Your task to perform on an android device: Show the shopping cart on amazon.com. Add sony triple a to the cart on amazon.com, then select checkout. Image 0: 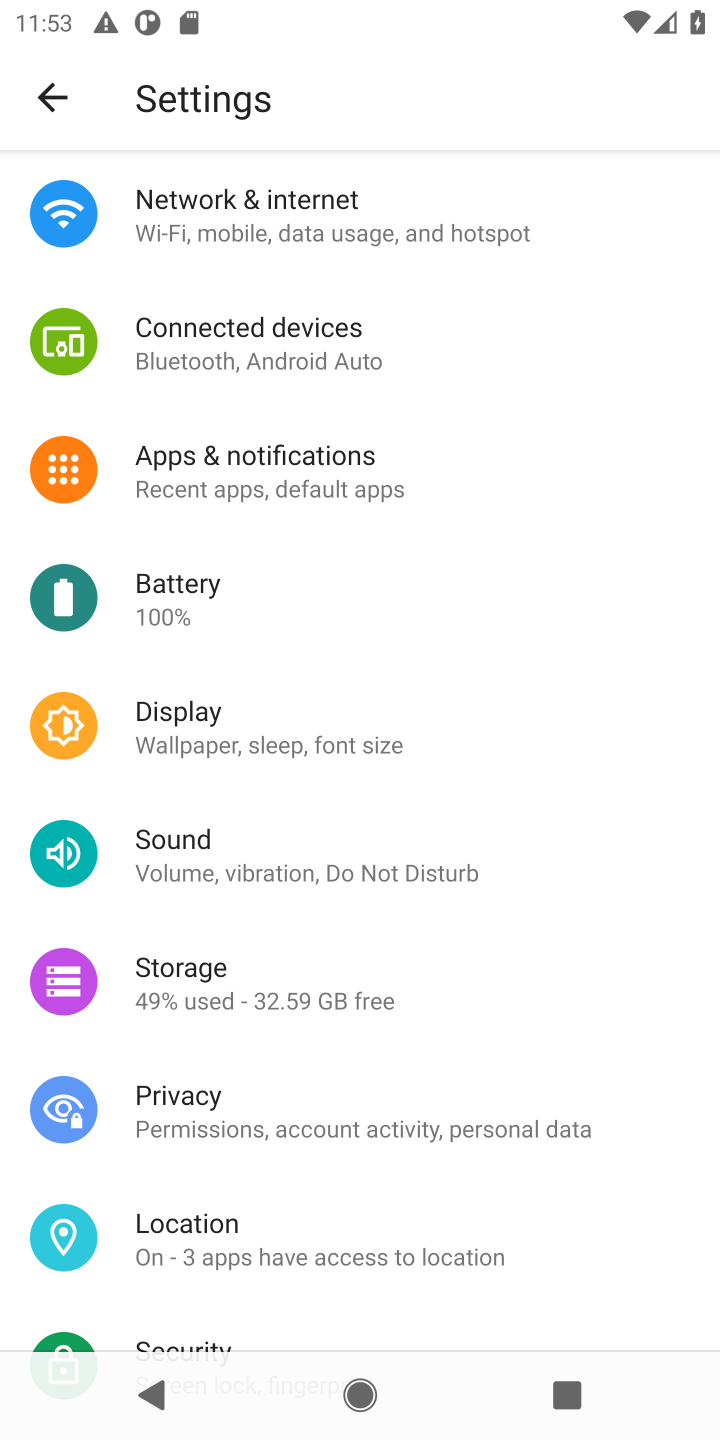
Step 0: press home button
Your task to perform on an android device: Show the shopping cart on amazon.com. Add sony triple a to the cart on amazon.com, then select checkout. Image 1: 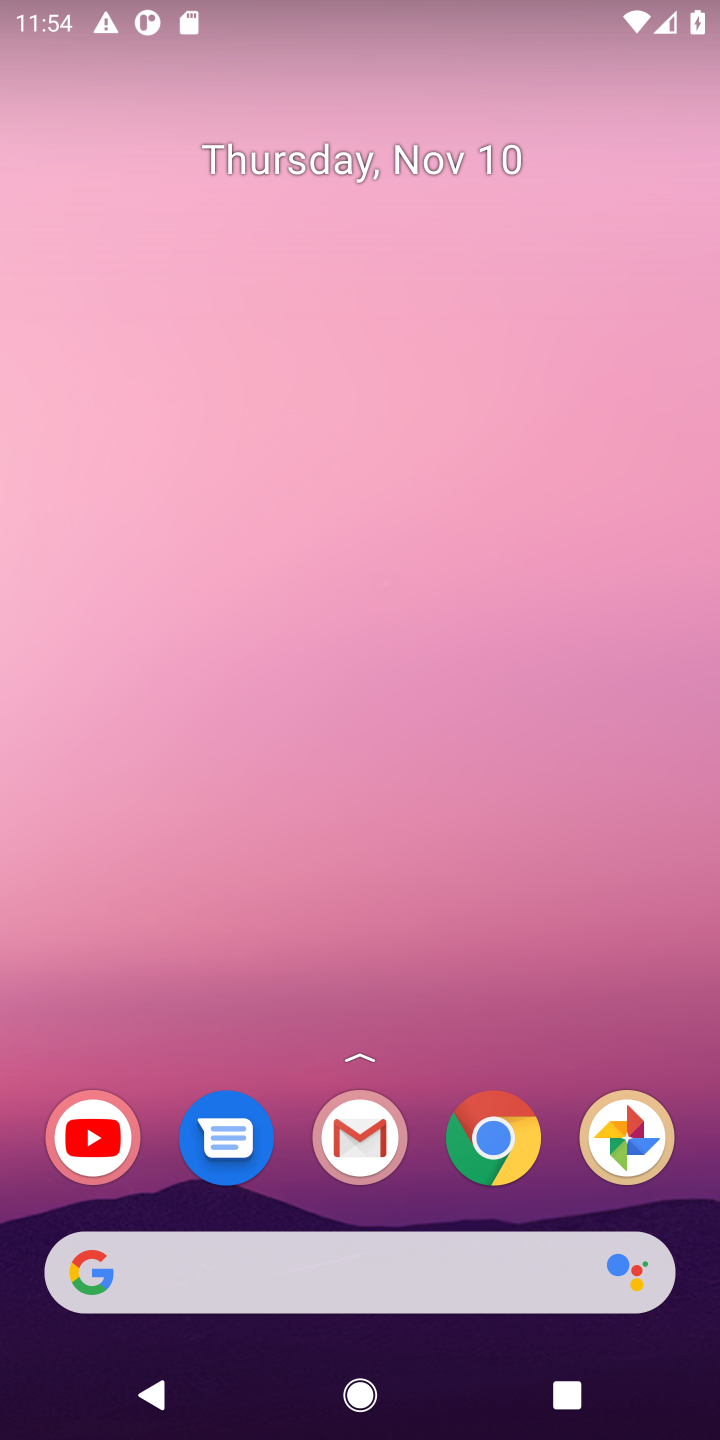
Step 1: click (482, 1144)
Your task to perform on an android device: Show the shopping cart on amazon.com. Add sony triple a to the cart on amazon.com, then select checkout. Image 2: 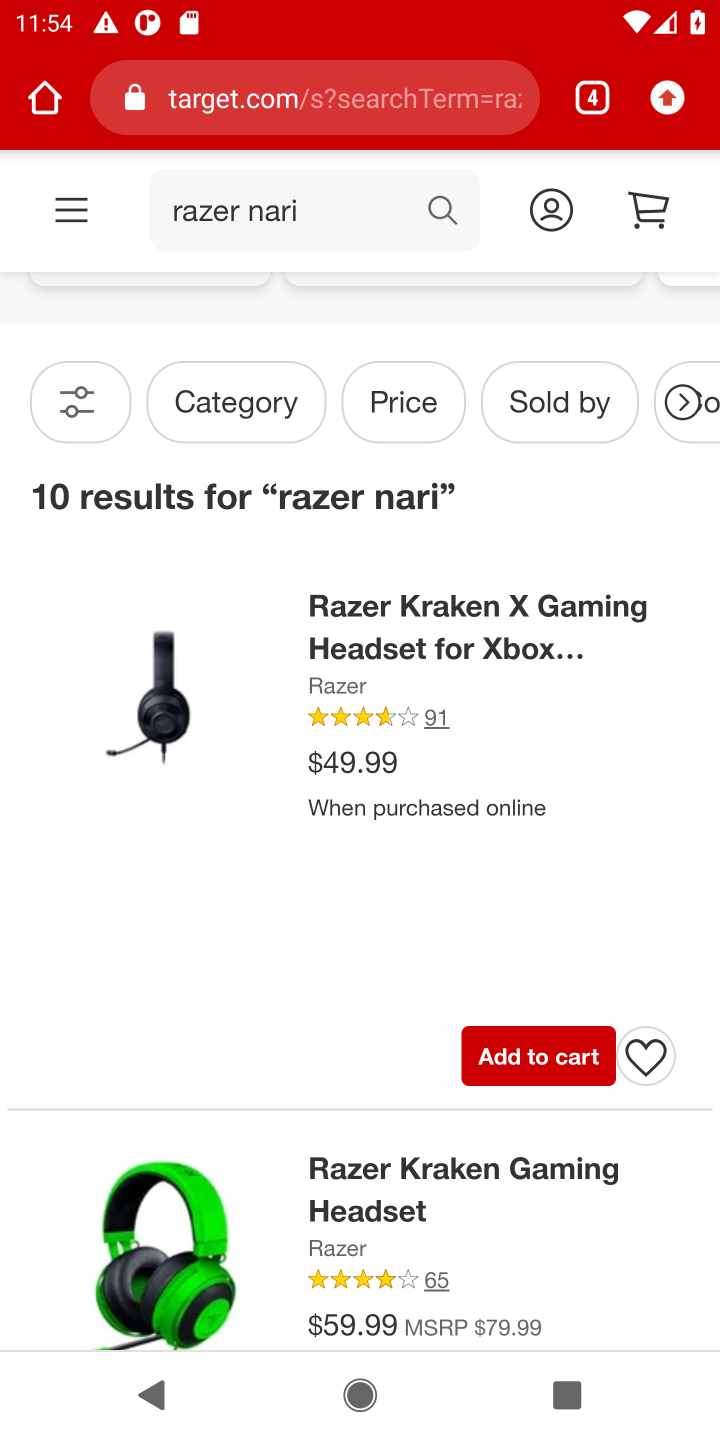
Step 2: click (597, 81)
Your task to perform on an android device: Show the shopping cart on amazon.com. Add sony triple a to the cart on amazon.com, then select checkout. Image 3: 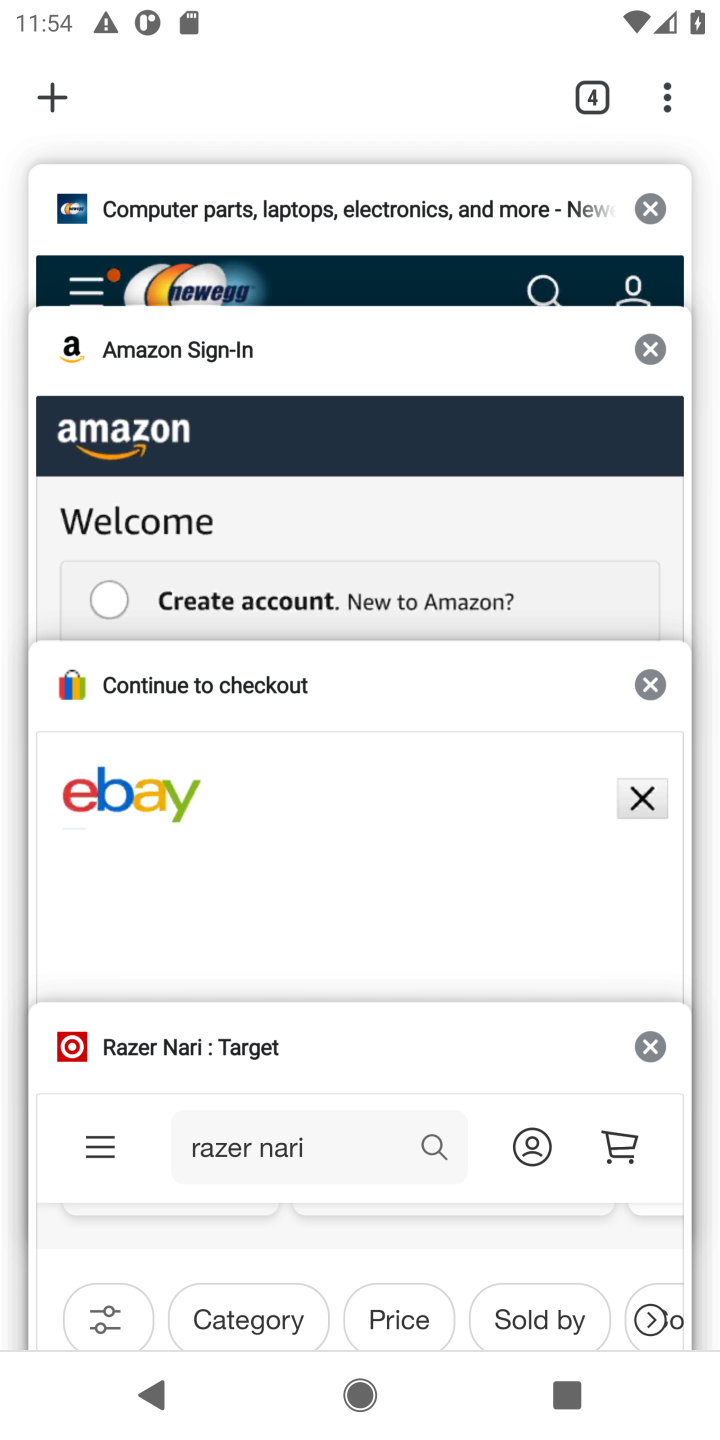
Step 3: click (301, 423)
Your task to perform on an android device: Show the shopping cart on amazon.com. Add sony triple a to the cart on amazon.com, then select checkout. Image 4: 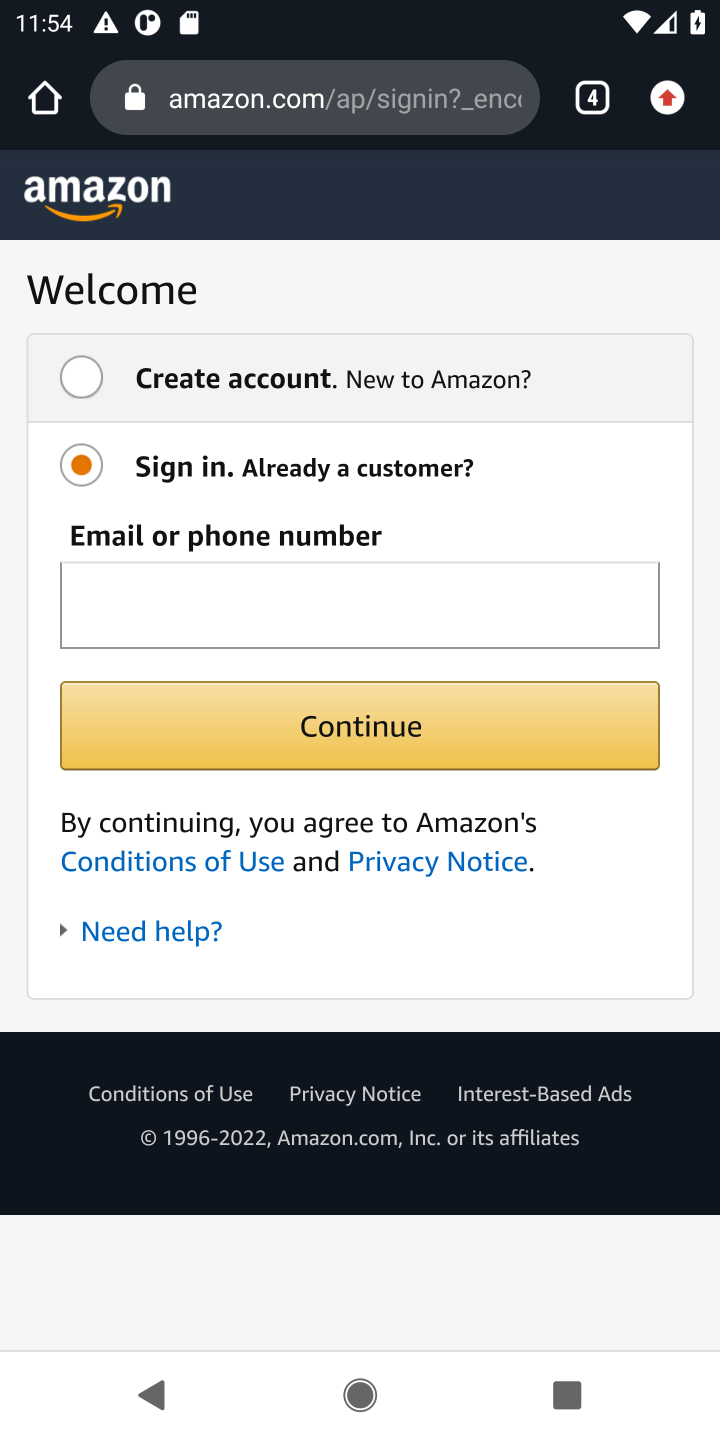
Step 4: press back button
Your task to perform on an android device: Show the shopping cart on amazon.com. Add sony triple a to the cart on amazon.com, then select checkout. Image 5: 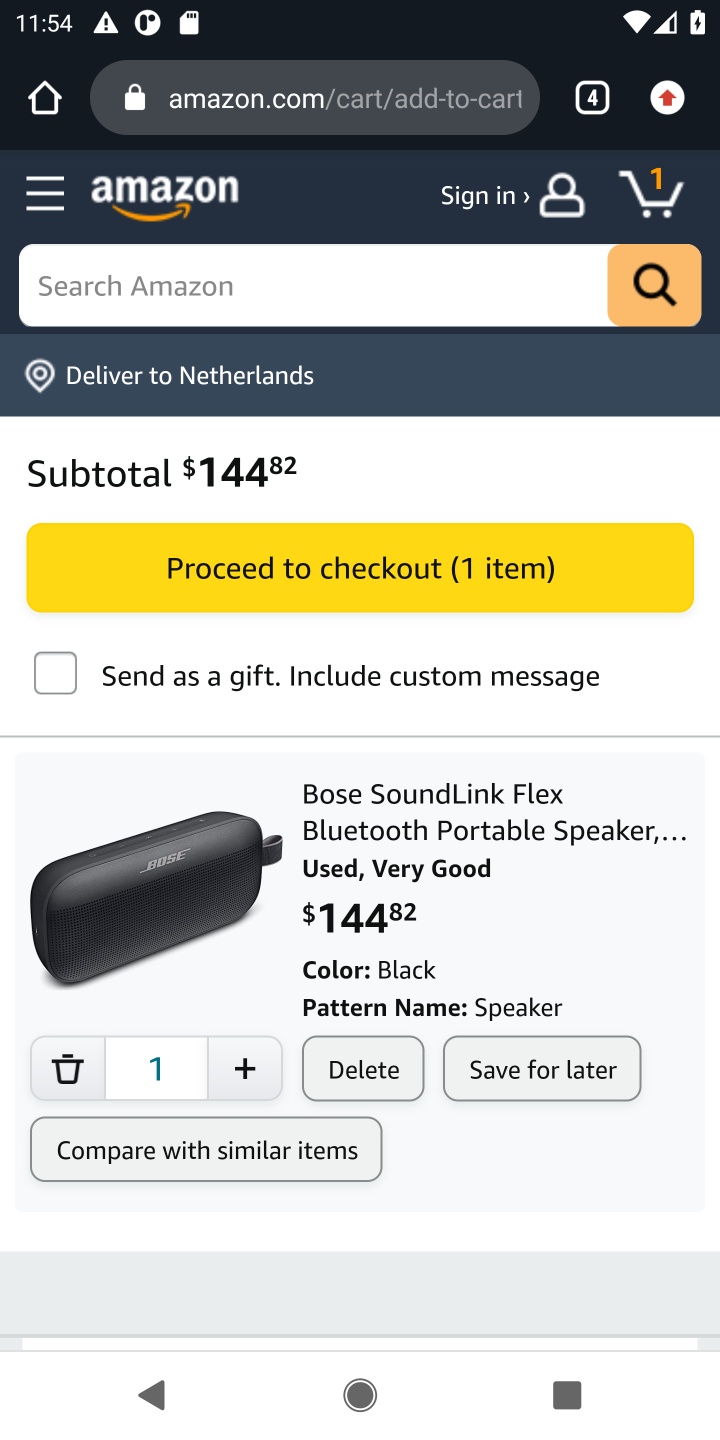
Step 5: click (307, 286)
Your task to perform on an android device: Show the shopping cart on amazon.com. Add sony triple a to the cart on amazon.com, then select checkout. Image 6: 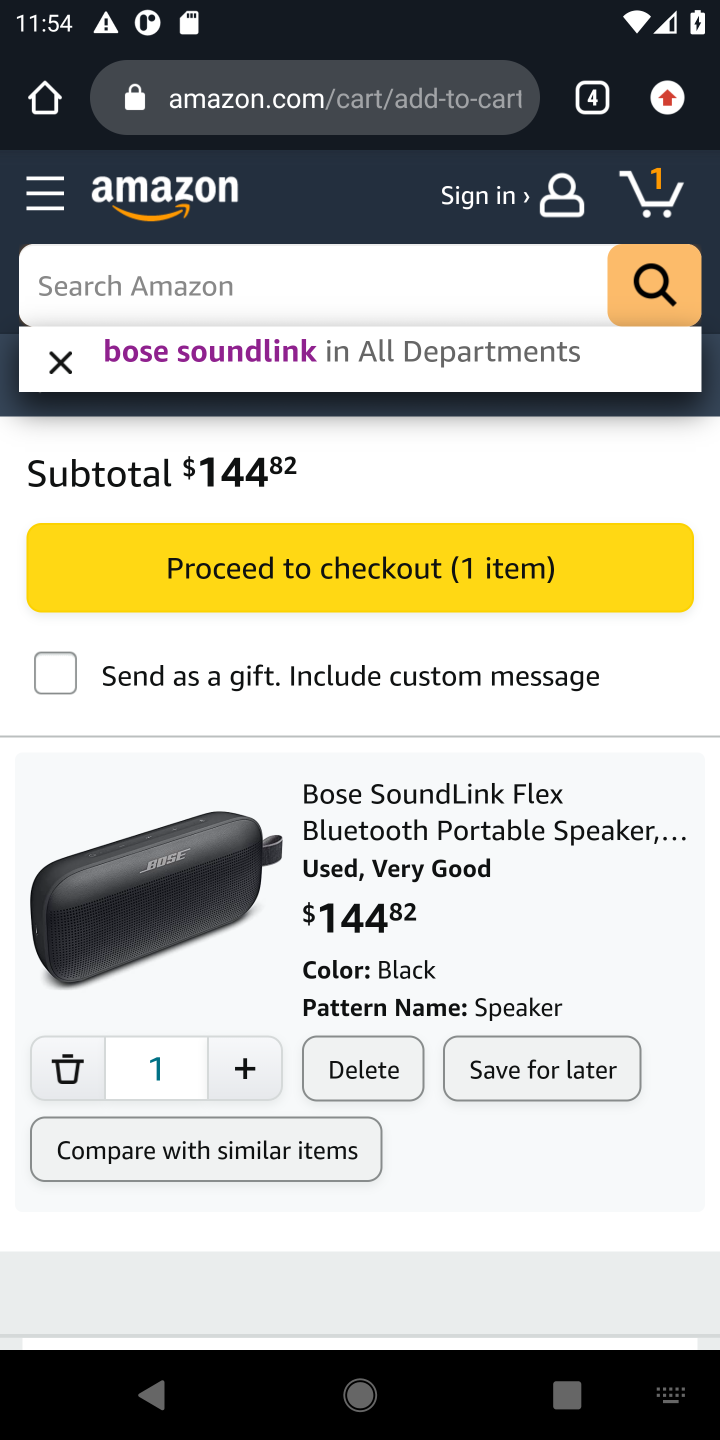
Step 6: type "sony triple a"
Your task to perform on an android device: Show the shopping cart on amazon.com. Add sony triple a to the cart on amazon.com, then select checkout. Image 7: 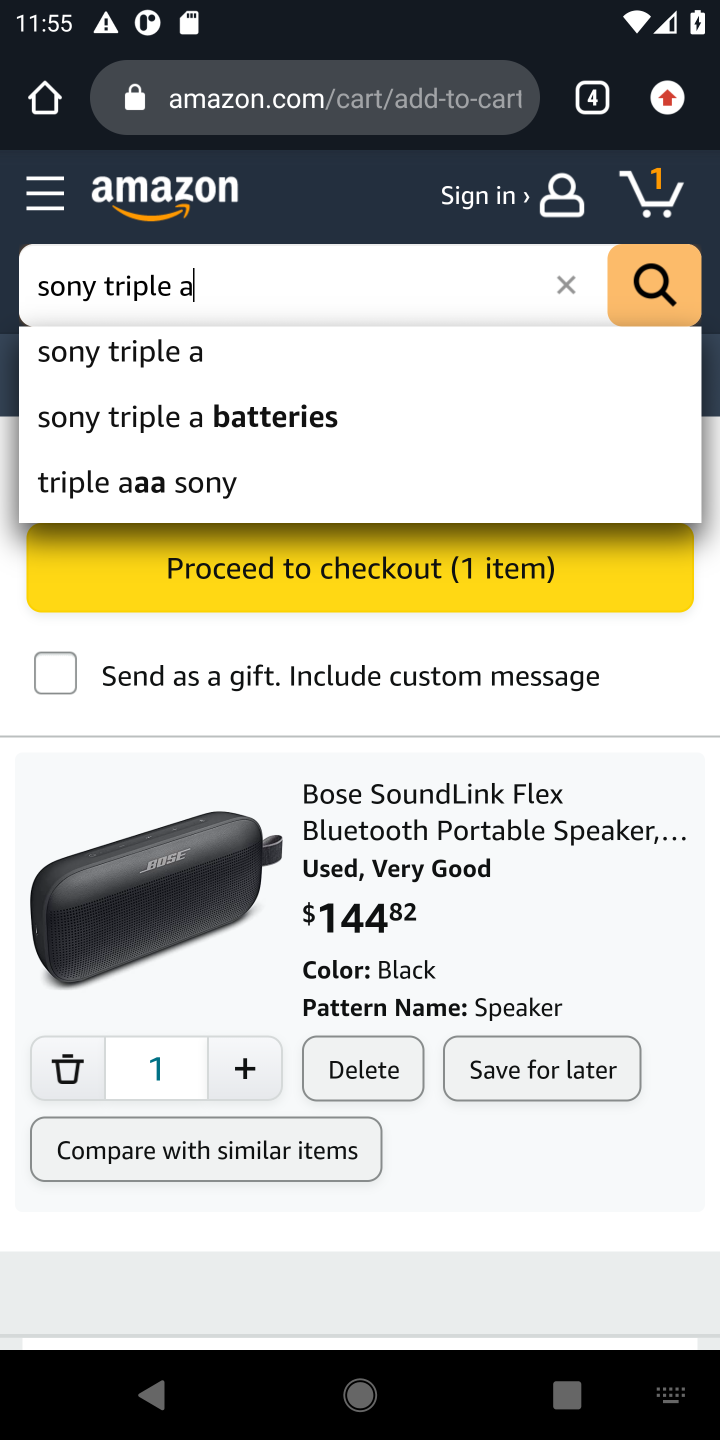
Step 7: click (186, 413)
Your task to perform on an android device: Show the shopping cart on amazon.com. Add sony triple a to the cart on amazon.com, then select checkout. Image 8: 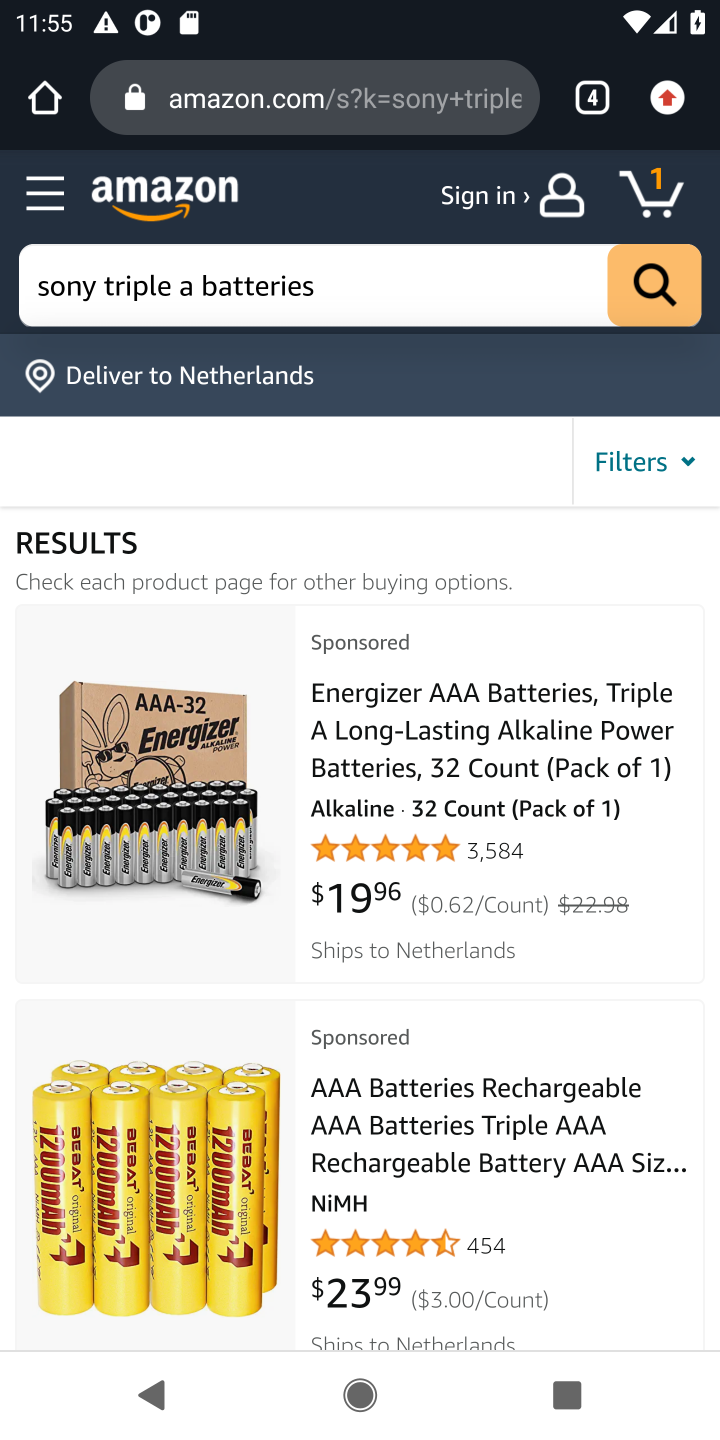
Step 8: drag from (490, 940) to (693, 775)
Your task to perform on an android device: Show the shopping cart on amazon.com. Add sony triple a to the cart on amazon.com, then select checkout. Image 9: 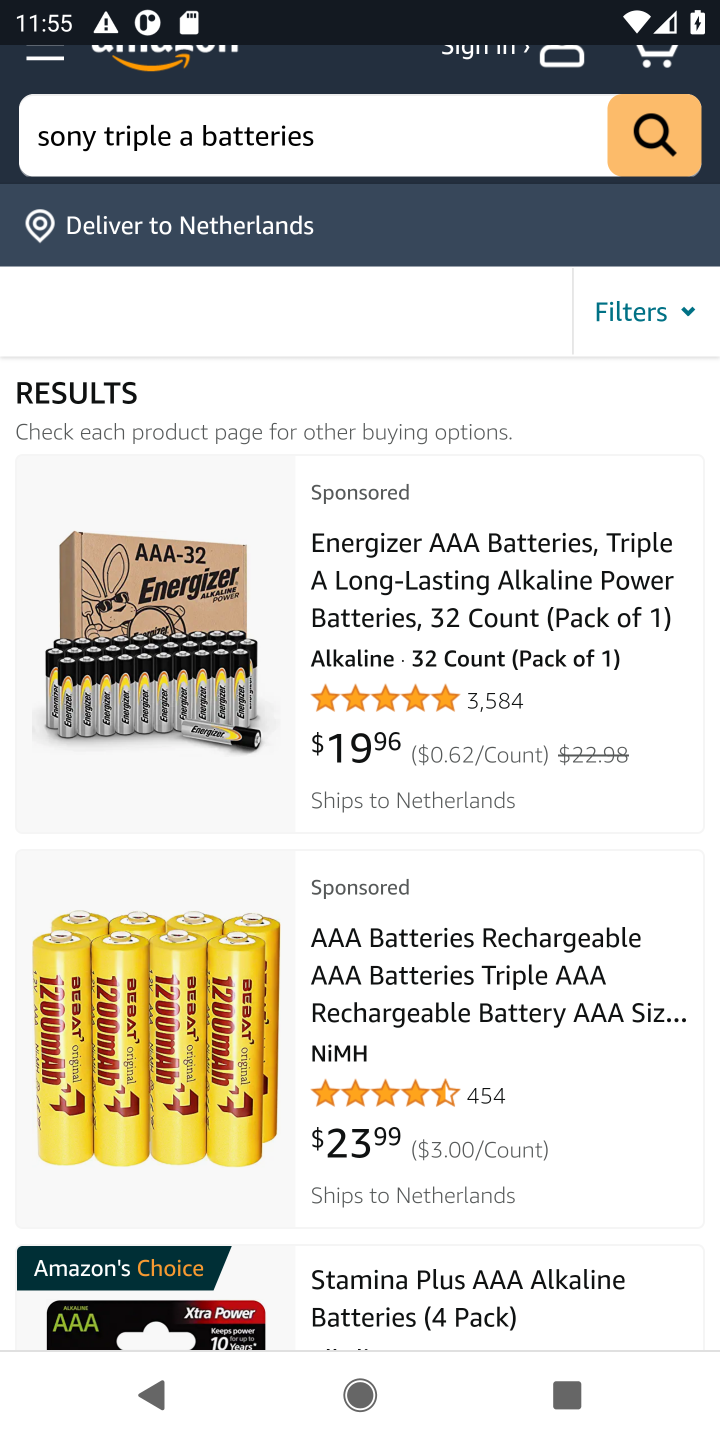
Step 9: click (418, 1276)
Your task to perform on an android device: Show the shopping cart on amazon.com. Add sony triple a to the cart on amazon.com, then select checkout. Image 10: 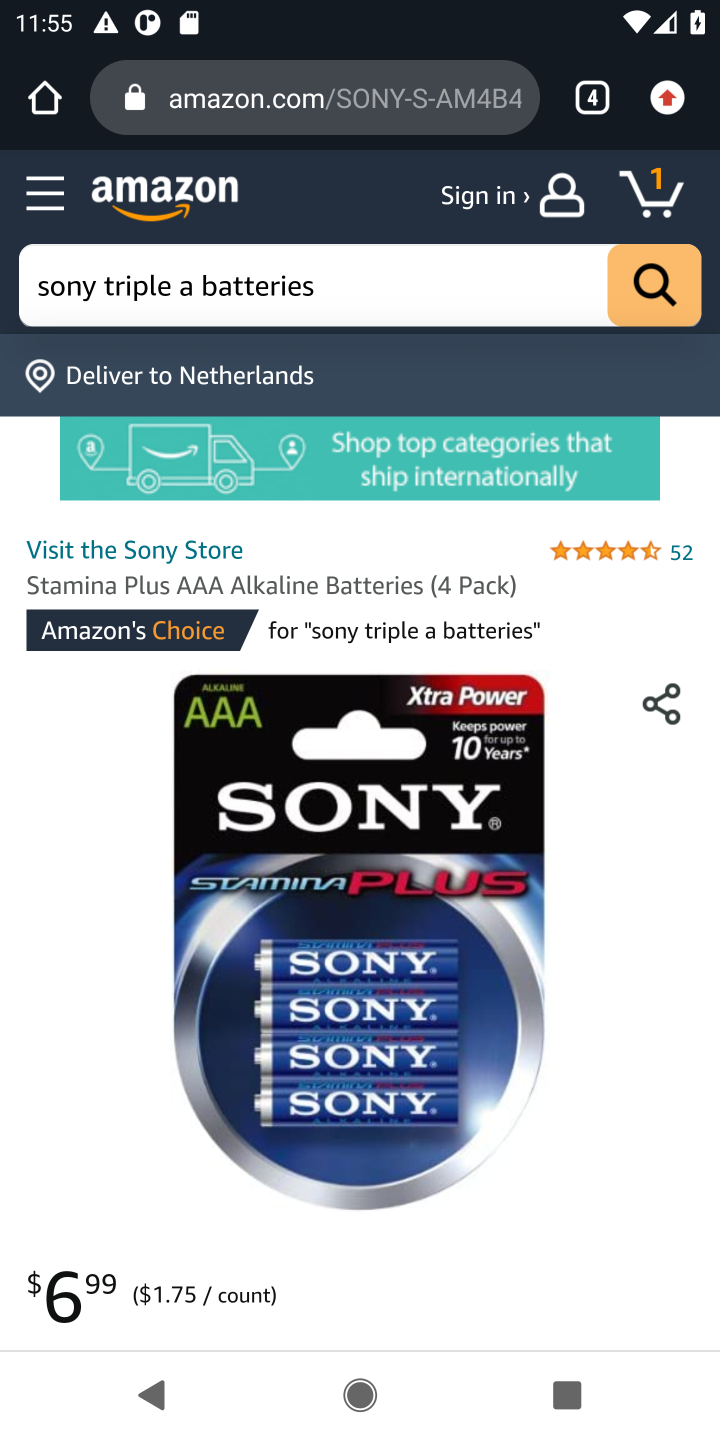
Step 10: drag from (57, 1212) to (91, 651)
Your task to perform on an android device: Show the shopping cart on amazon.com. Add sony triple a to the cart on amazon.com, then select checkout. Image 11: 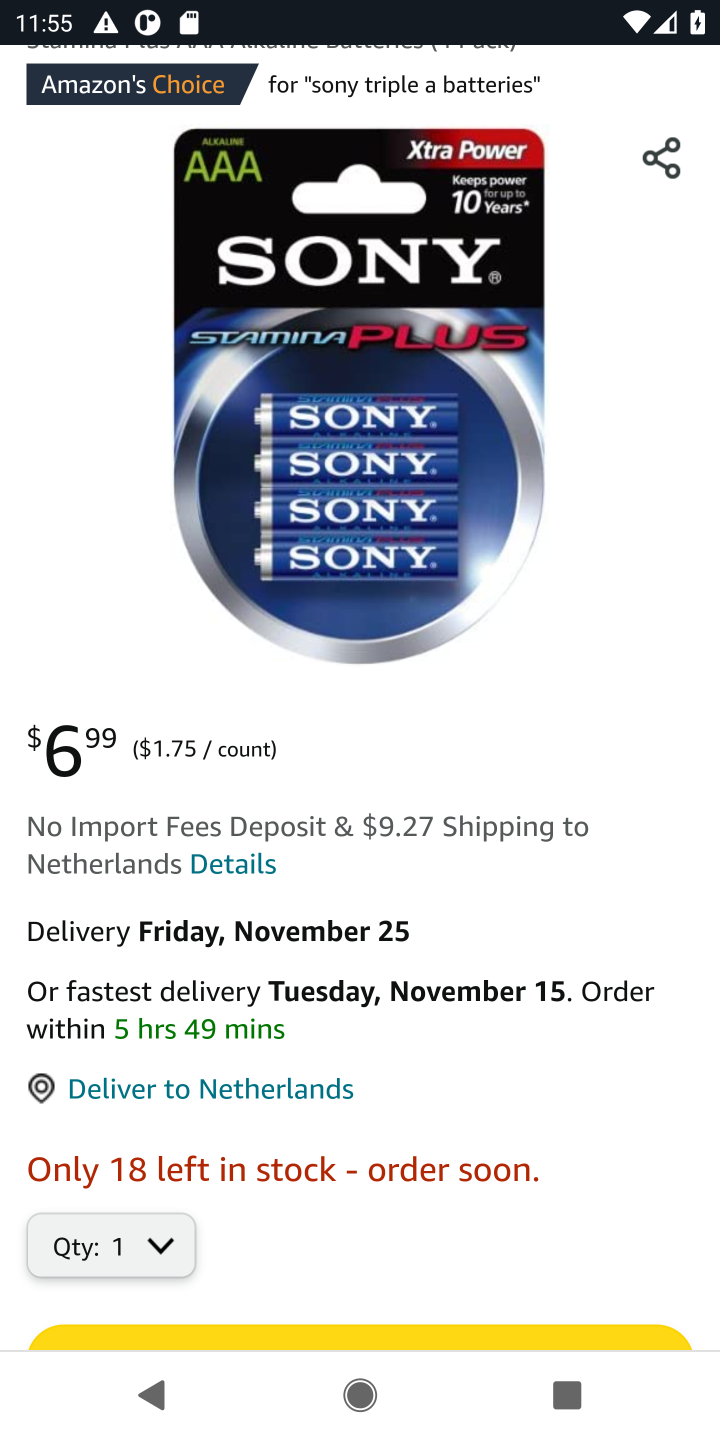
Step 11: drag from (390, 1004) to (442, 880)
Your task to perform on an android device: Show the shopping cart on amazon.com. Add sony triple a to the cart on amazon.com, then select checkout. Image 12: 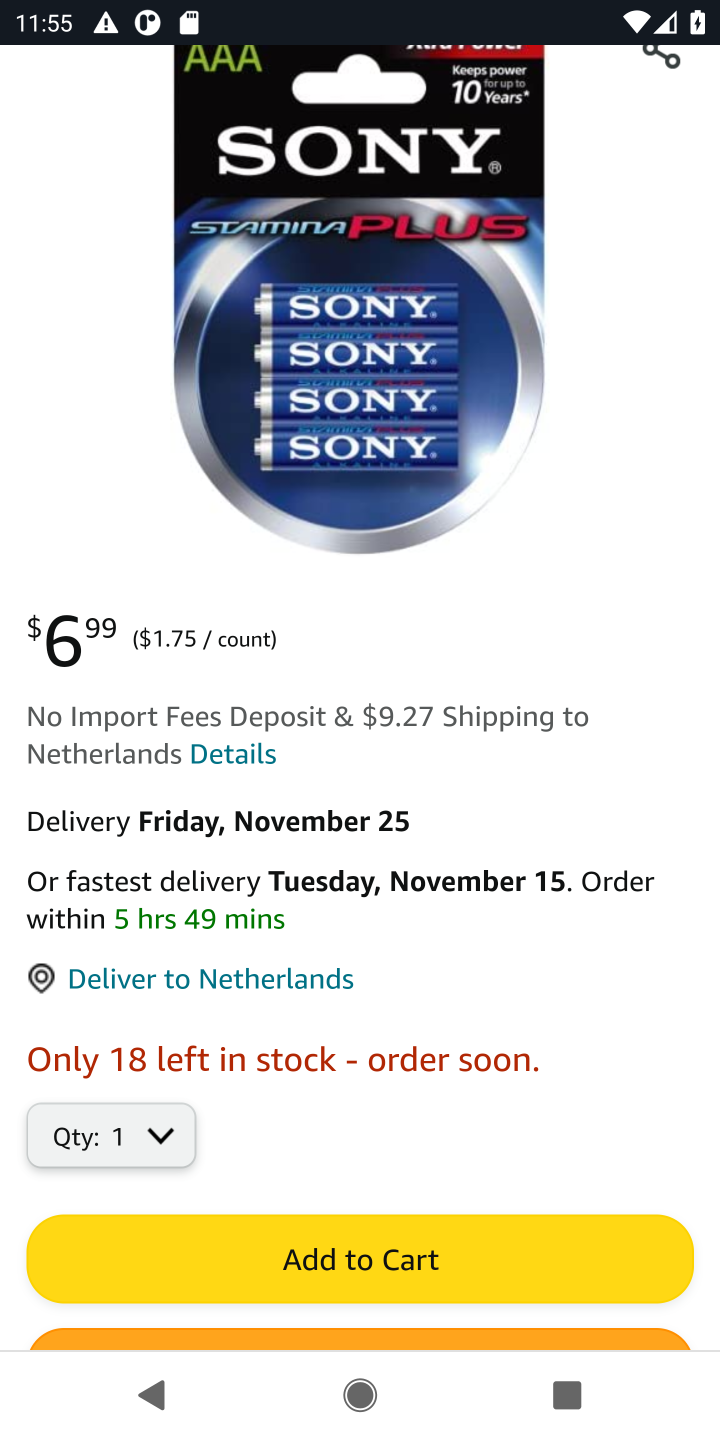
Step 12: click (419, 1263)
Your task to perform on an android device: Show the shopping cart on amazon.com. Add sony triple a to the cart on amazon.com, then select checkout. Image 13: 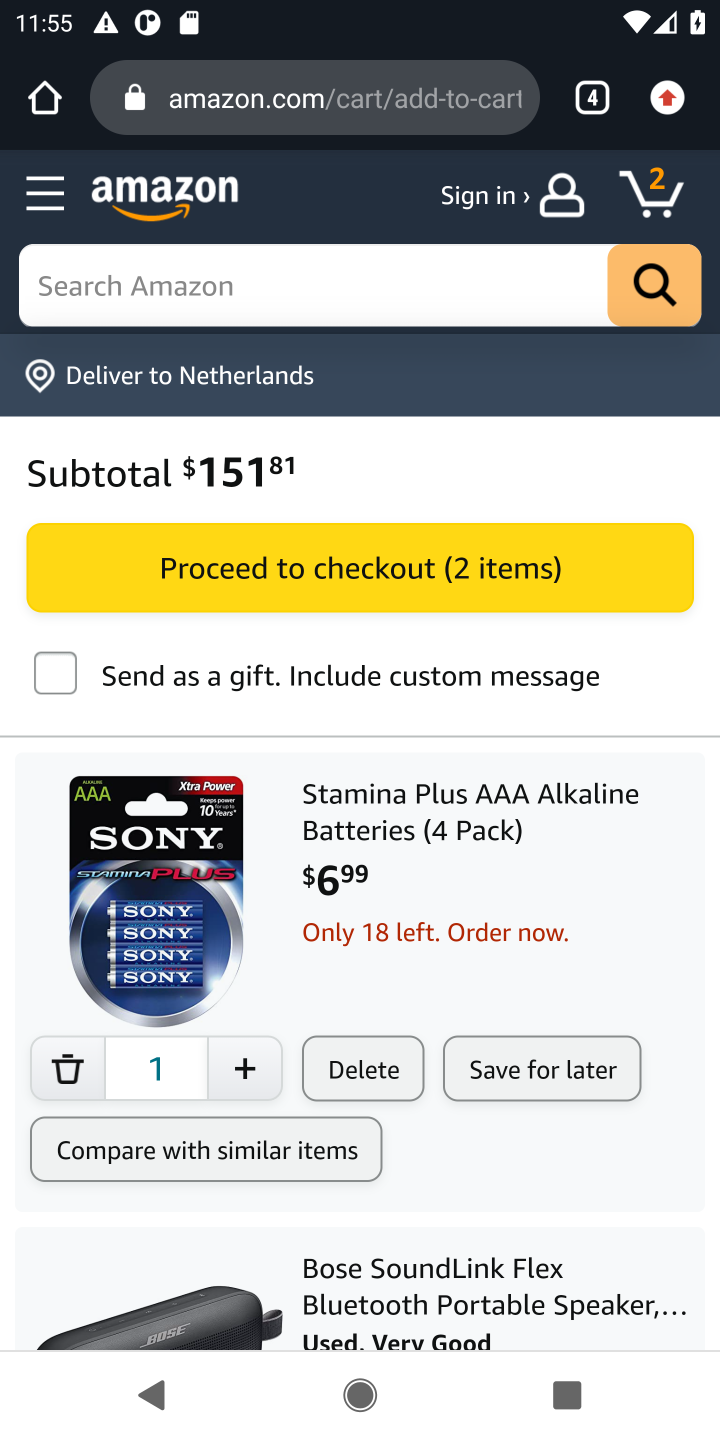
Step 13: click (466, 566)
Your task to perform on an android device: Show the shopping cart on amazon.com. Add sony triple a to the cart on amazon.com, then select checkout. Image 14: 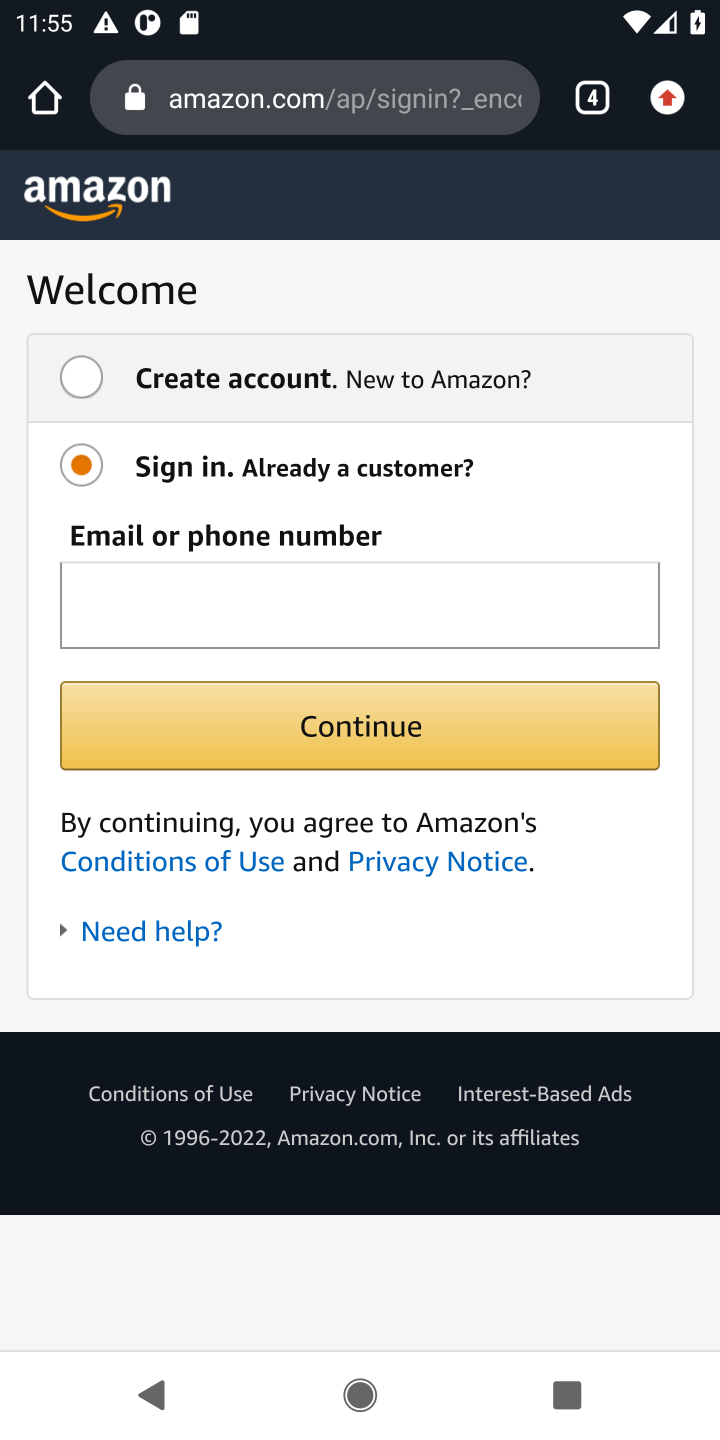
Step 14: task complete